Your task to perform on an android device: star an email in the gmail app Image 0: 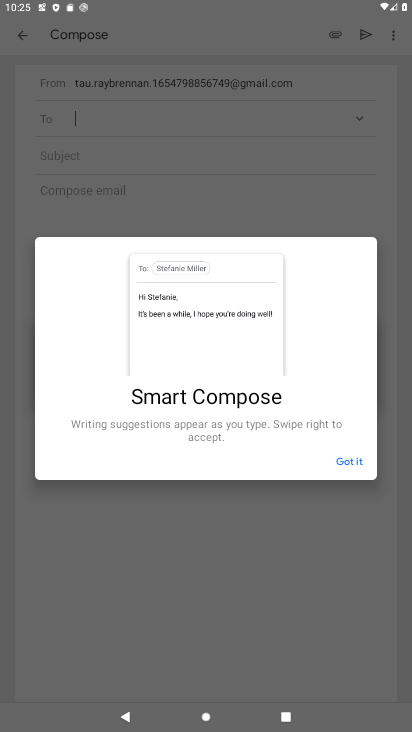
Step 0: click (345, 471)
Your task to perform on an android device: star an email in the gmail app Image 1: 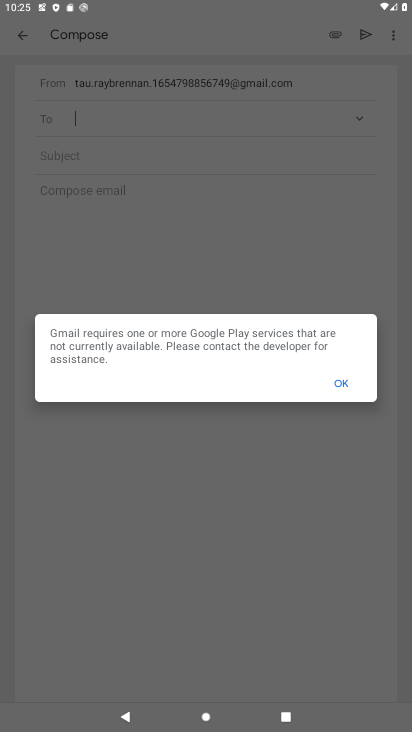
Step 1: click (19, 28)
Your task to perform on an android device: star an email in the gmail app Image 2: 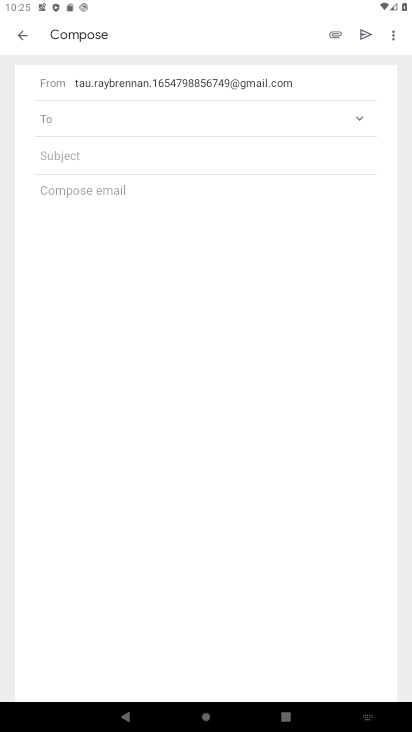
Step 2: click (23, 45)
Your task to perform on an android device: star an email in the gmail app Image 3: 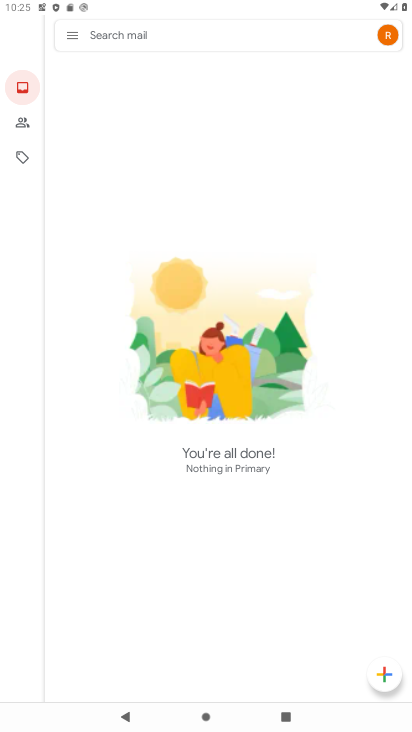
Step 3: click (79, 30)
Your task to perform on an android device: star an email in the gmail app Image 4: 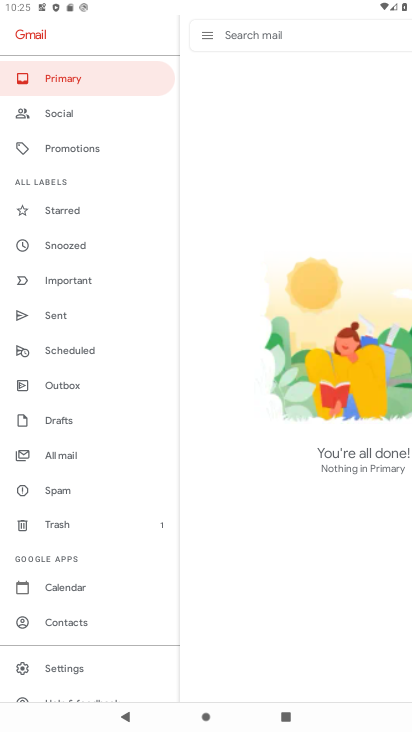
Step 4: click (70, 462)
Your task to perform on an android device: star an email in the gmail app Image 5: 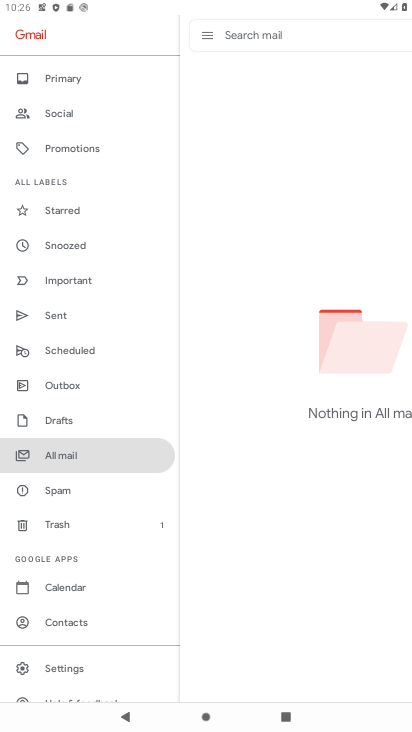
Step 5: click (84, 463)
Your task to perform on an android device: star an email in the gmail app Image 6: 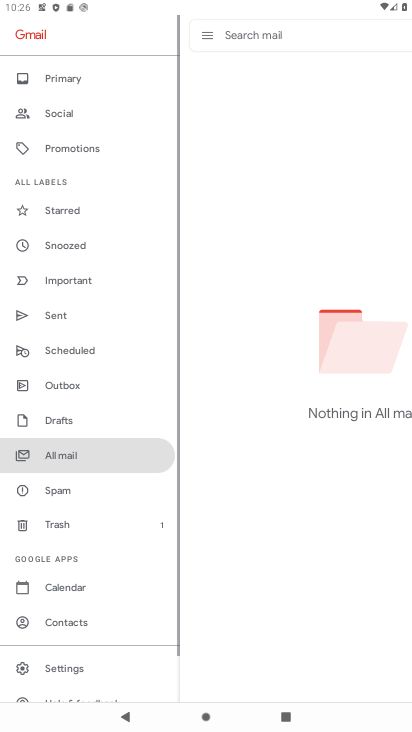
Step 6: task complete